Your task to perform on an android device: Open internet settings Image 0: 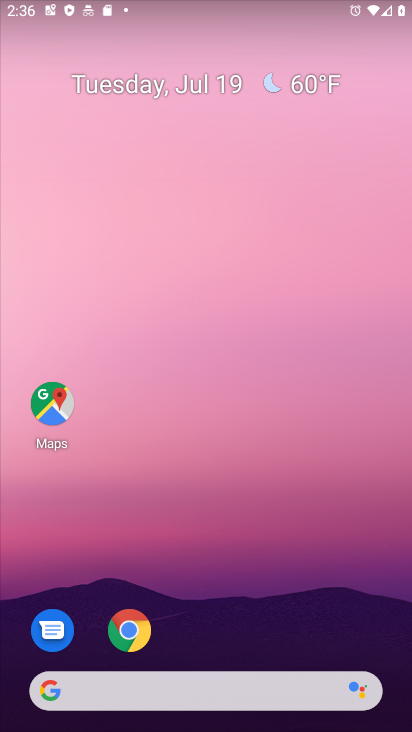
Step 0: click (219, 224)
Your task to perform on an android device: Open internet settings Image 1: 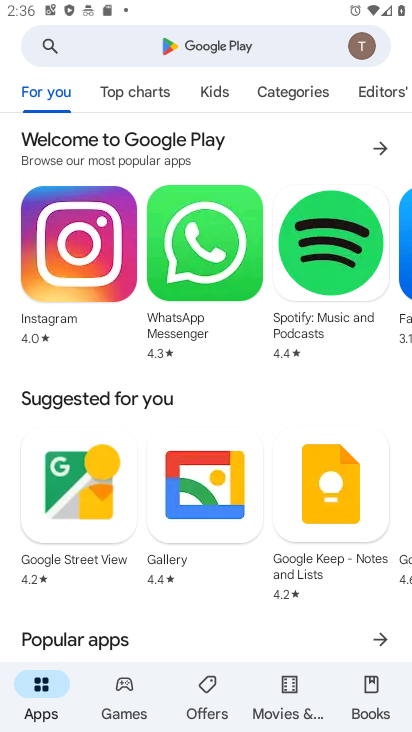
Step 1: press back button
Your task to perform on an android device: Open internet settings Image 2: 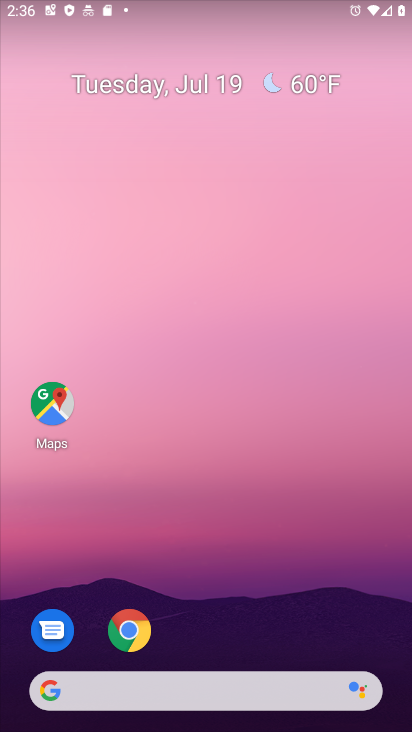
Step 2: drag from (211, 657) to (74, 140)
Your task to perform on an android device: Open internet settings Image 3: 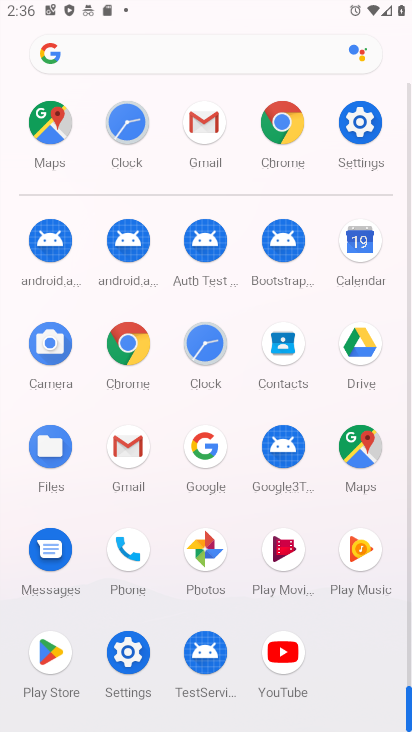
Step 3: click (346, 120)
Your task to perform on an android device: Open internet settings Image 4: 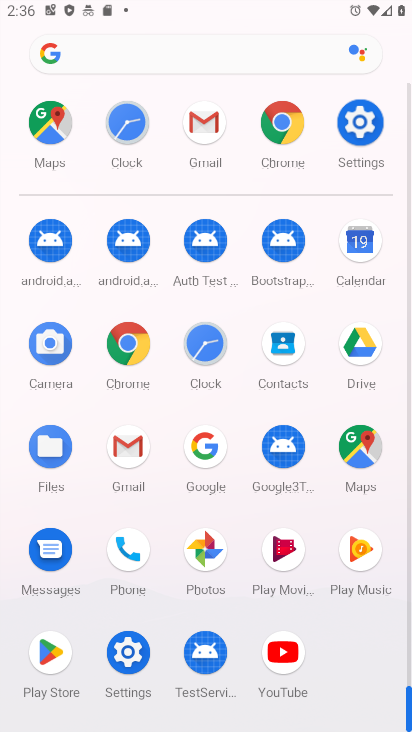
Step 4: click (381, 109)
Your task to perform on an android device: Open internet settings Image 5: 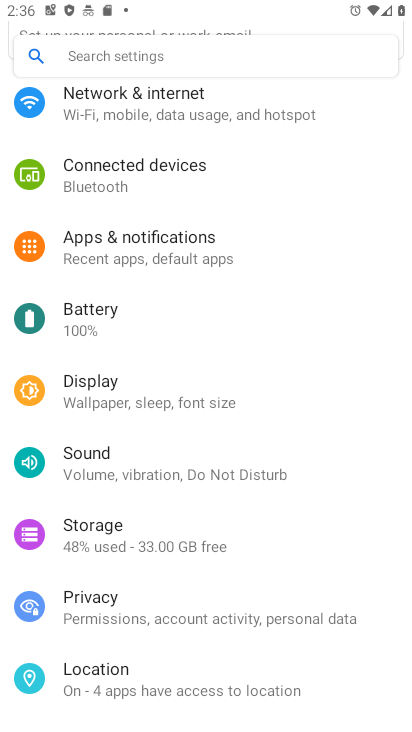
Step 5: drag from (137, 479) to (125, 193)
Your task to perform on an android device: Open internet settings Image 6: 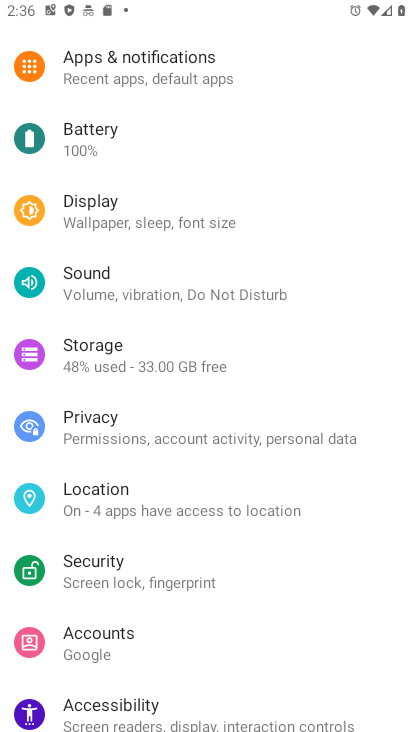
Step 6: drag from (185, 613) to (180, 425)
Your task to perform on an android device: Open internet settings Image 7: 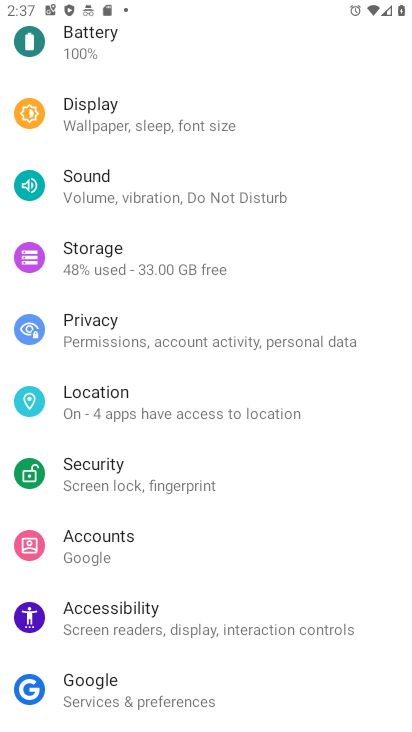
Step 7: drag from (111, 209) to (143, 518)
Your task to perform on an android device: Open internet settings Image 8: 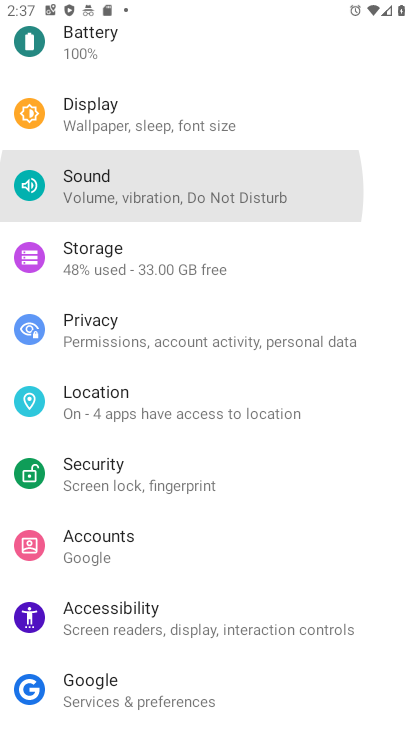
Step 8: drag from (163, 280) to (179, 534)
Your task to perform on an android device: Open internet settings Image 9: 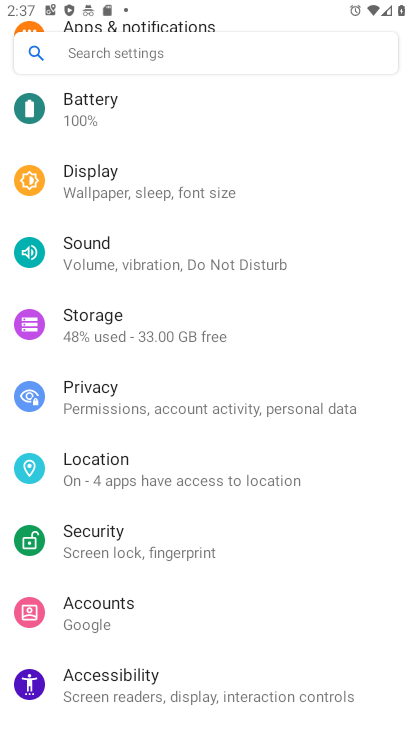
Step 9: drag from (145, 213) to (223, 576)
Your task to perform on an android device: Open internet settings Image 10: 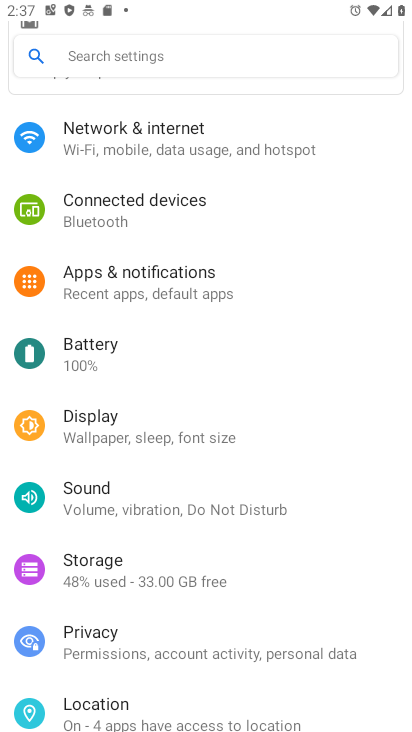
Step 10: click (166, 583)
Your task to perform on an android device: Open internet settings Image 11: 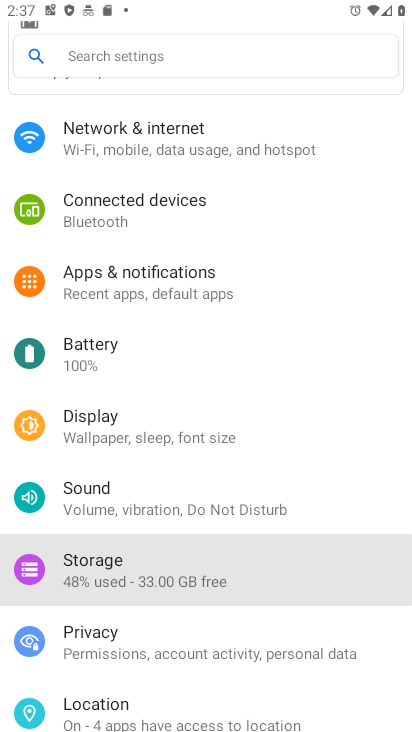
Step 11: drag from (178, 377) to (239, 627)
Your task to perform on an android device: Open internet settings Image 12: 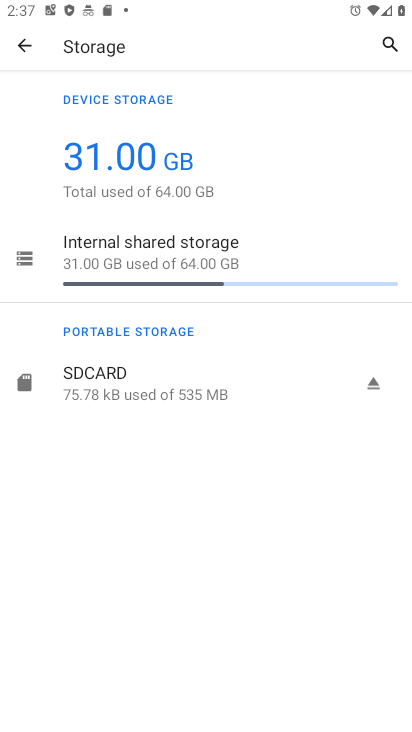
Step 12: click (23, 46)
Your task to perform on an android device: Open internet settings Image 13: 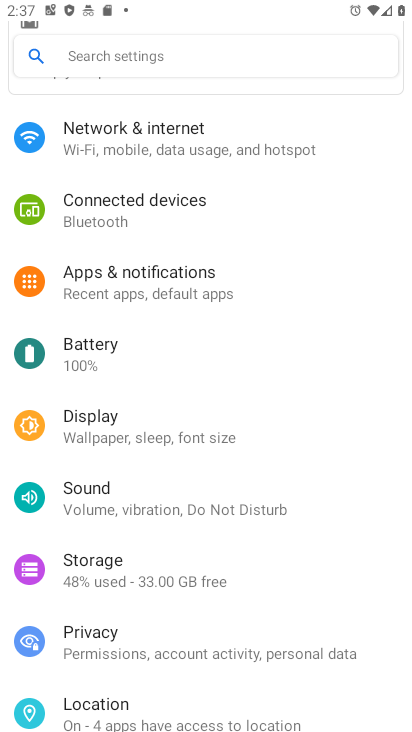
Step 13: click (113, 145)
Your task to perform on an android device: Open internet settings Image 14: 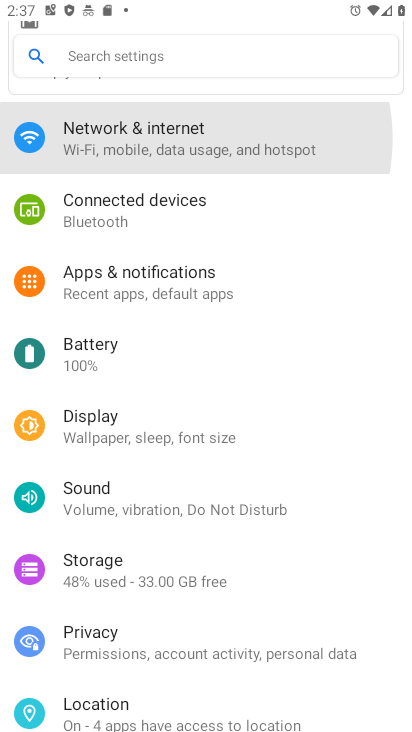
Step 14: click (114, 143)
Your task to perform on an android device: Open internet settings Image 15: 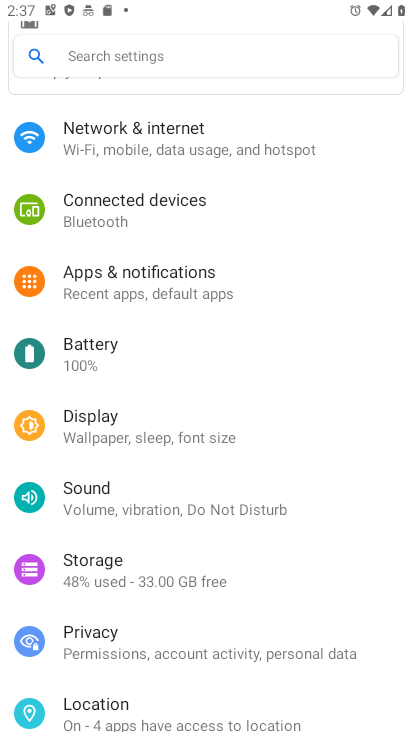
Step 15: click (116, 142)
Your task to perform on an android device: Open internet settings Image 16: 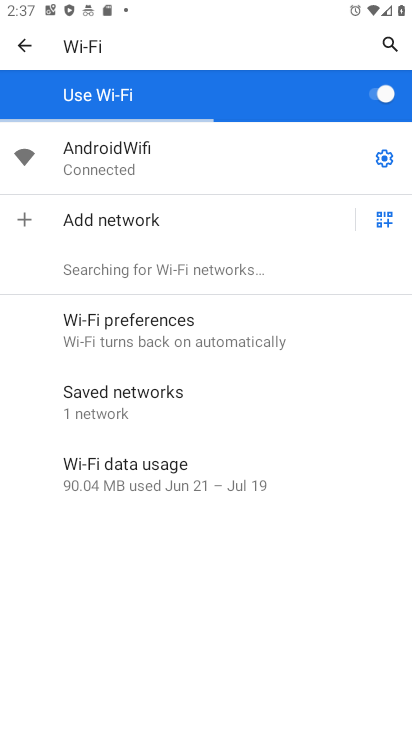
Step 16: click (22, 41)
Your task to perform on an android device: Open internet settings Image 17: 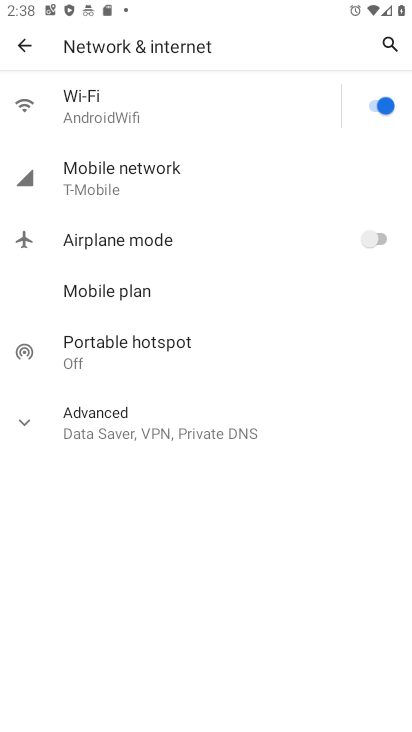
Step 17: task complete